Your task to perform on an android device: turn off improve location accuracy Image 0: 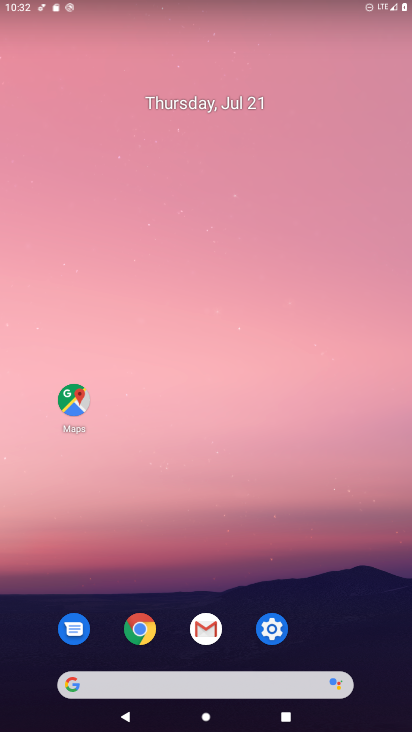
Step 0: click (273, 628)
Your task to perform on an android device: turn off improve location accuracy Image 1: 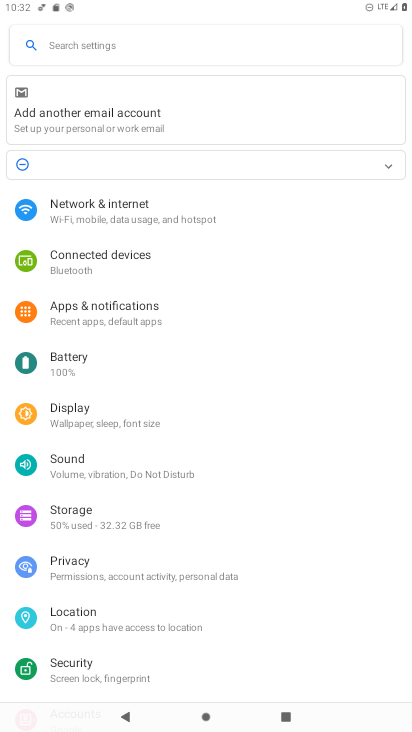
Step 1: click (97, 617)
Your task to perform on an android device: turn off improve location accuracy Image 2: 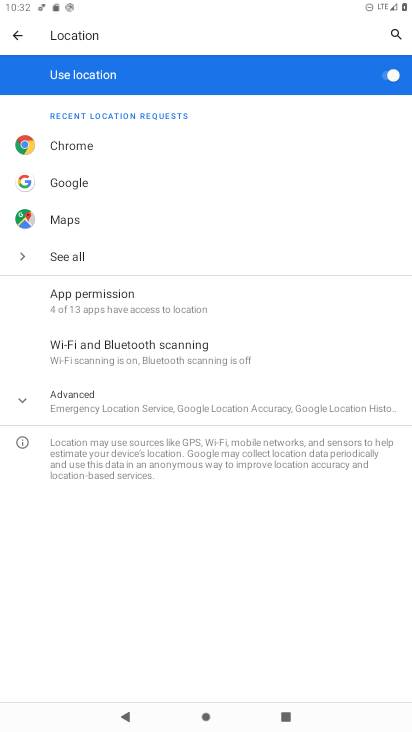
Step 2: click (23, 399)
Your task to perform on an android device: turn off improve location accuracy Image 3: 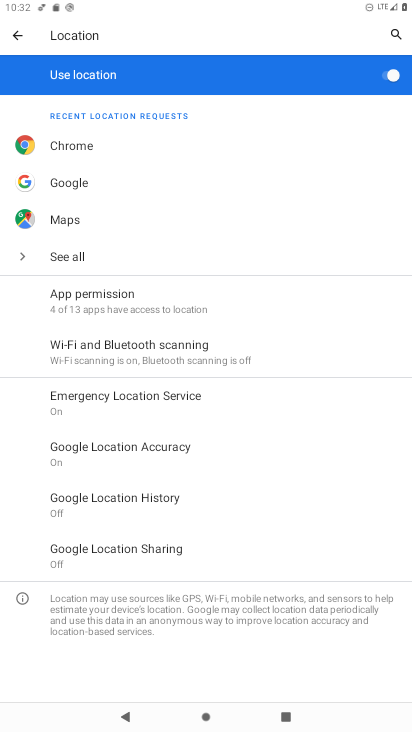
Step 3: click (141, 442)
Your task to perform on an android device: turn off improve location accuracy Image 4: 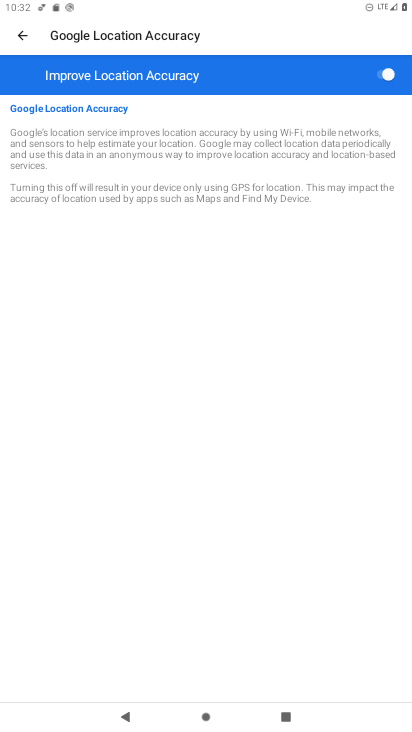
Step 4: click (386, 72)
Your task to perform on an android device: turn off improve location accuracy Image 5: 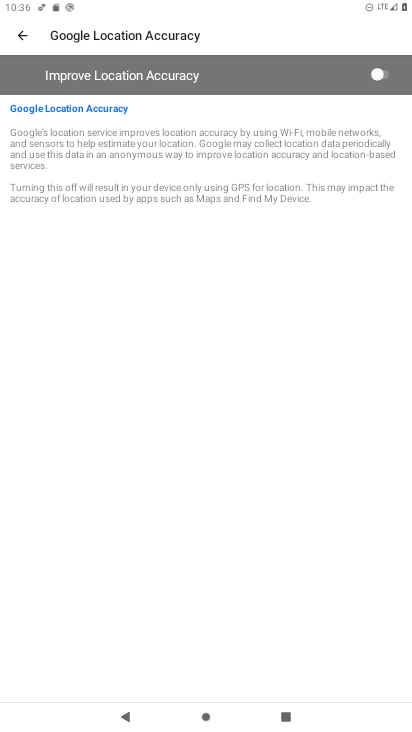
Step 5: task complete